Your task to perform on an android device: show emergency info Image 0: 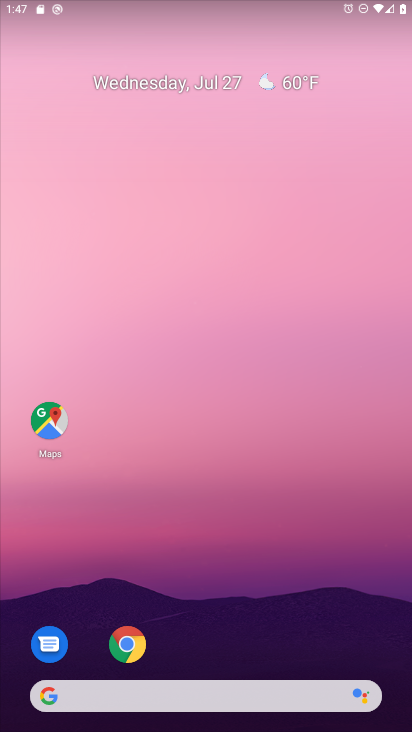
Step 0: drag from (182, 644) to (208, 166)
Your task to perform on an android device: show emergency info Image 1: 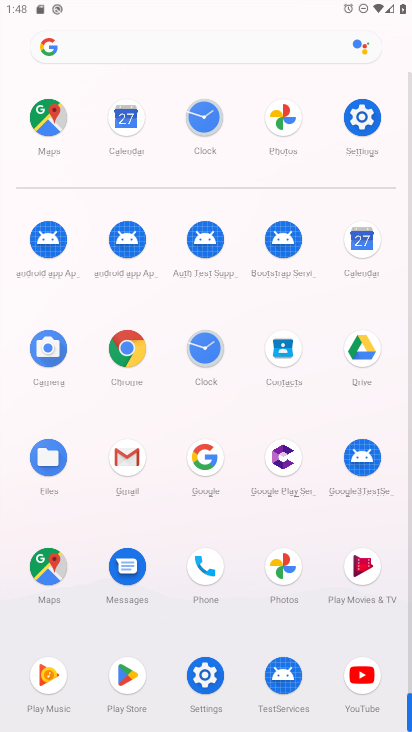
Step 1: click (197, 682)
Your task to perform on an android device: show emergency info Image 2: 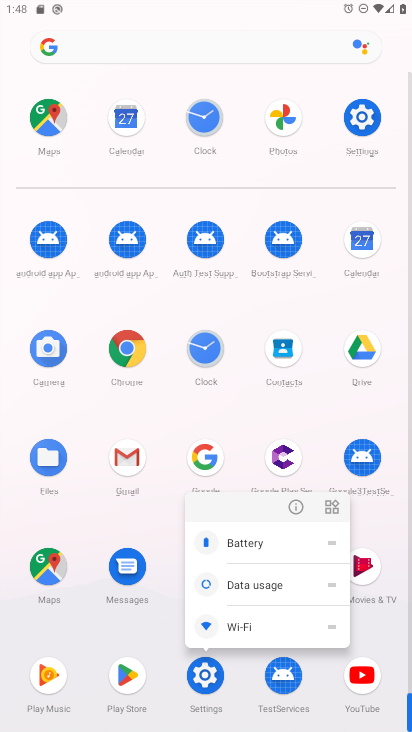
Step 2: click (296, 502)
Your task to perform on an android device: show emergency info Image 3: 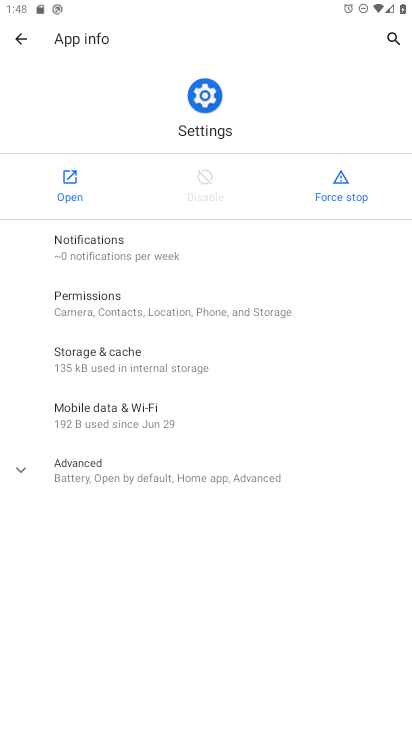
Step 3: click (73, 204)
Your task to perform on an android device: show emergency info Image 4: 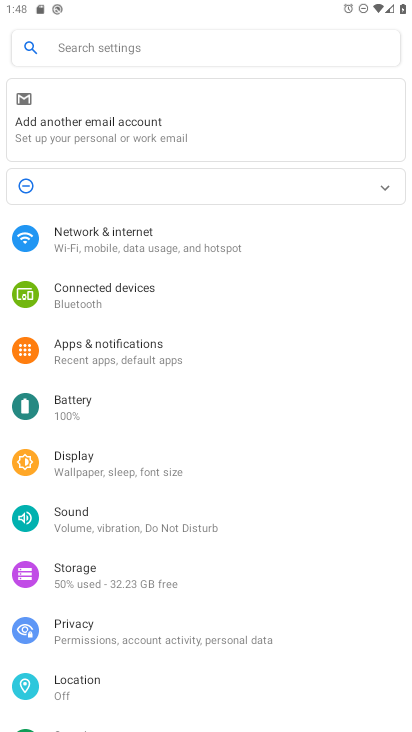
Step 4: drag from (155, 589) to (247, 236)
Your task to perform on an android device: show emergency info Image 5: 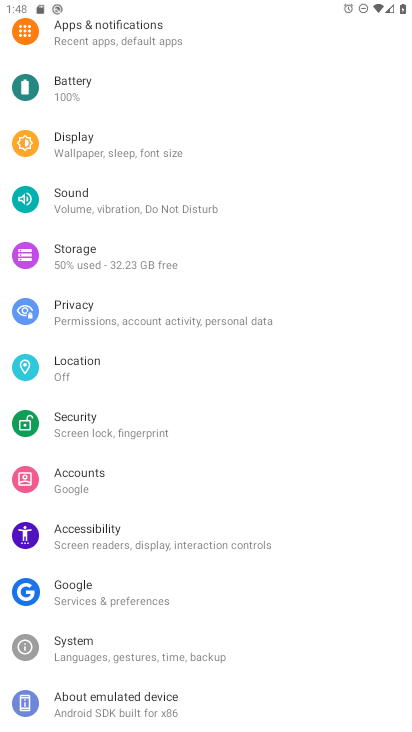
Step 5: click (101, 702)
Your task to perform on an android device: show emergency info Image 6: 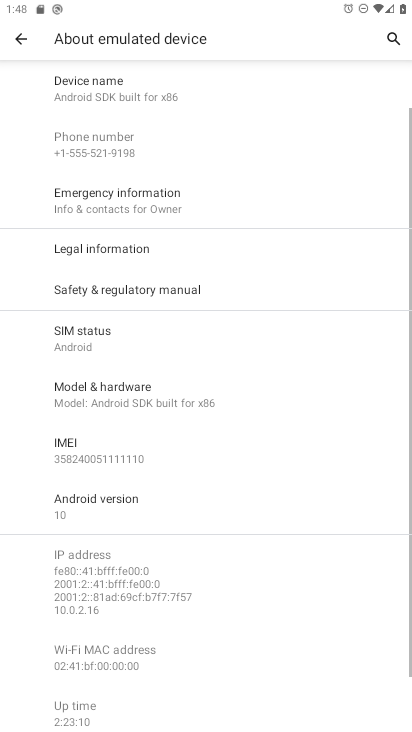
Step 6: click (193, 200)
Your task to perform on an android device: show emergency info Image 7: 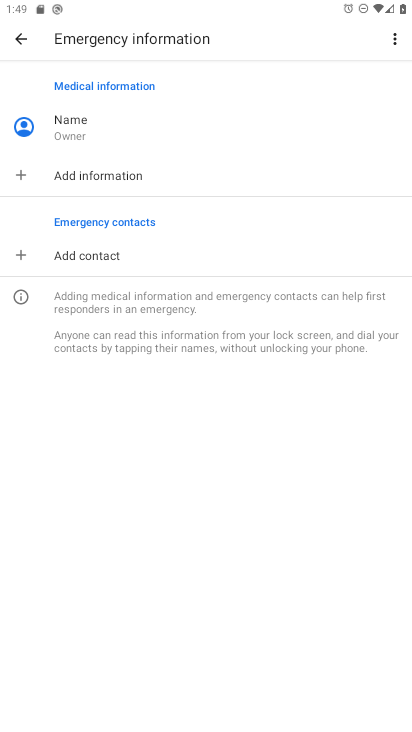
Step 7: task complete